Your task to perform on an android device: Play the last video I watched on Youtube Image 0: 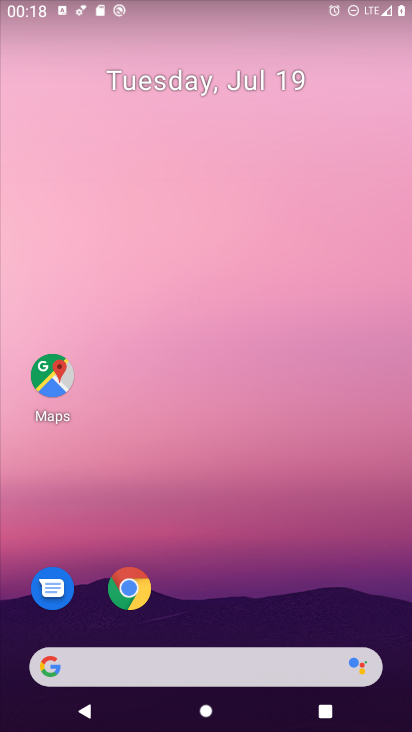
Step 0: drag from (353, 248) to (352, 140)
Your task to perform on an android device: Play the last video I watched on Youtube Image 1: 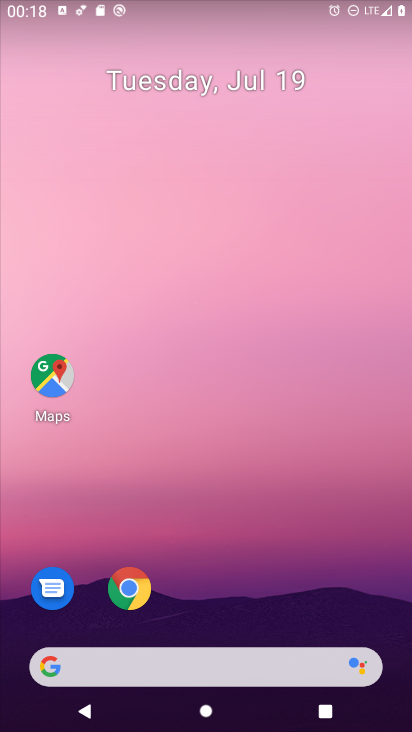
Step 1: drag from (384, 636) to (365, 1)
Your task to perform on an android device: Play the last video I watched on Youtube Image 2: 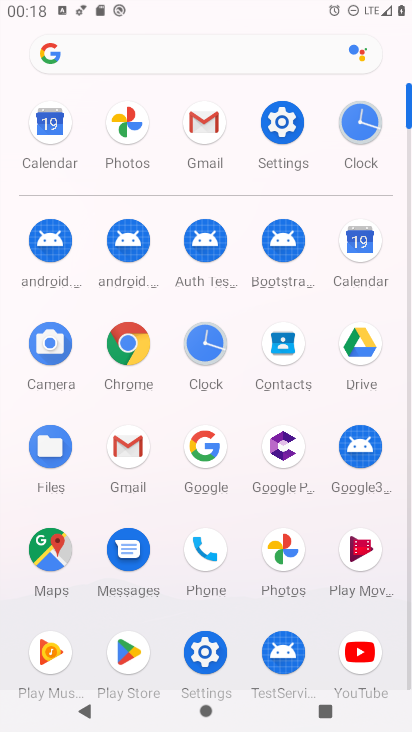
Step 2: click (356, 650)
Your task to perform on an android device: Play the last video I watched on Youtube Image 3: 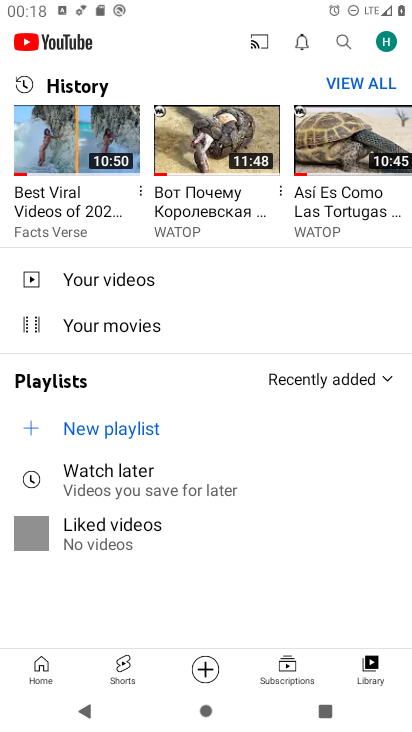
Step 3: click (77, 128)
Your task to perform on an android device: Play the last video I watched on Youtube Image 4: 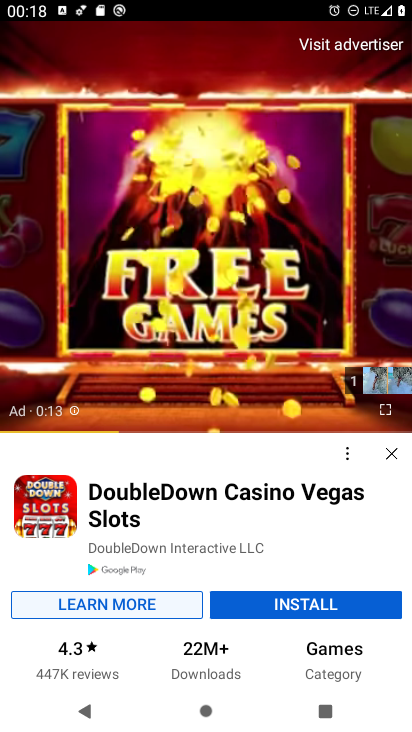
Step 4: click (389, 452)
Your task to perform on an android device: Play the last video I watched on Youtube Image 5: 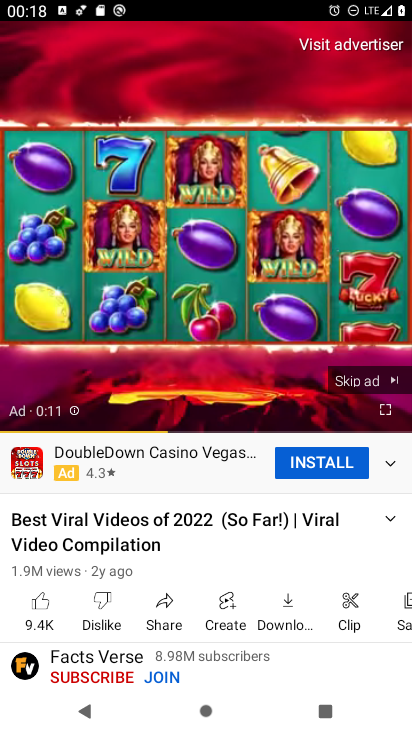
Step 5: click (369, 376)
Your task to perform on an android device: Play the last video I watched on Youtube Image 6: 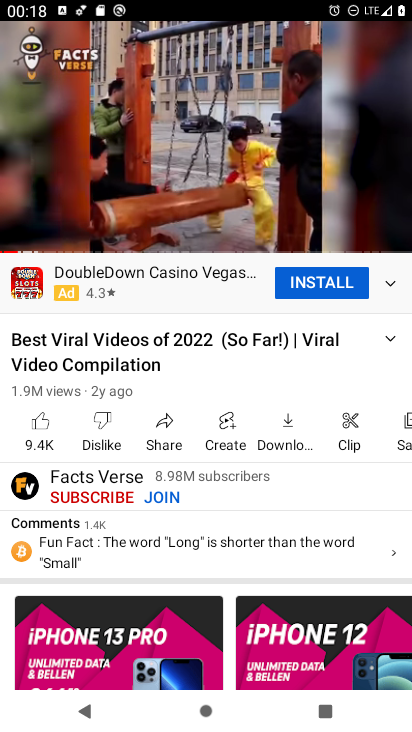
Step 6: click (208, 147)
Your task to perform on an android device: Play the last video I watched on Youtube Image 7: 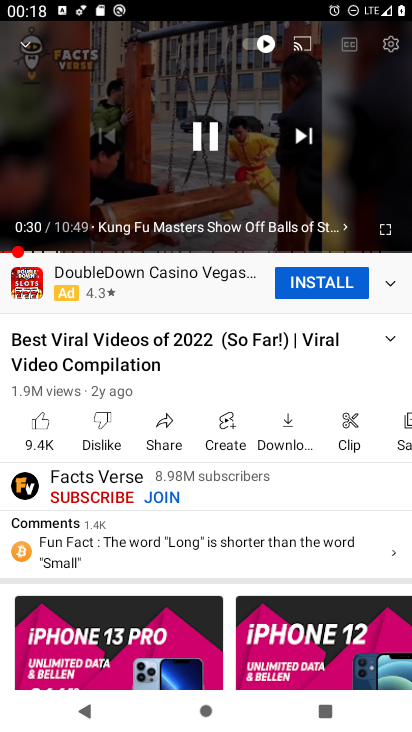
Step 7: click (208, 147)
Your task to perform on an android device: Play the last video I watched on Youtube Image 8: 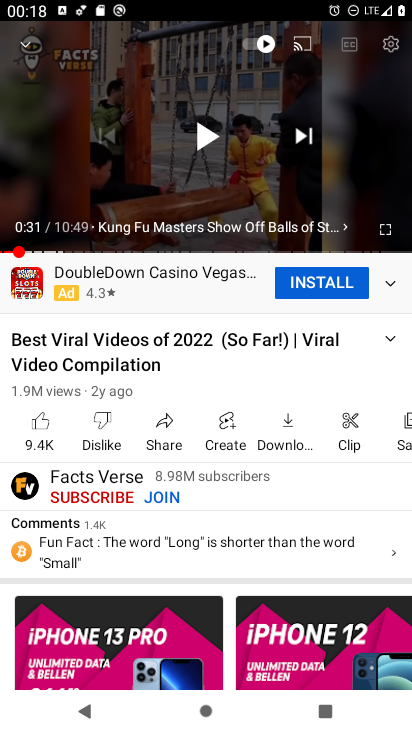
Step 8: task complete